Your task to perform on an android device: turn on bluetooth scan Image 0: 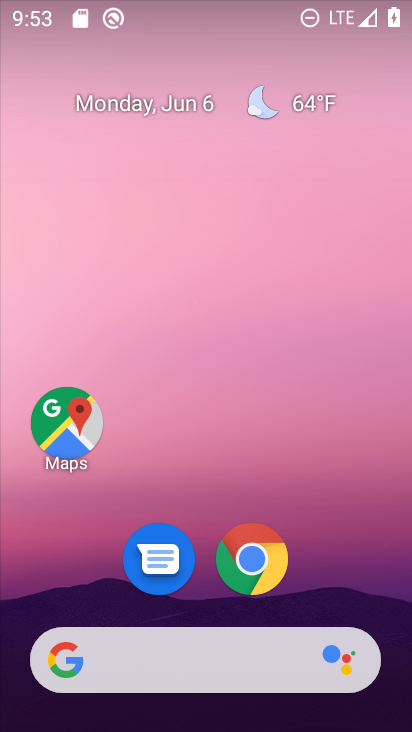
Step 0: click (185, 59)
Your task to perform on an android device: turn on bluetooth scan Image 1: 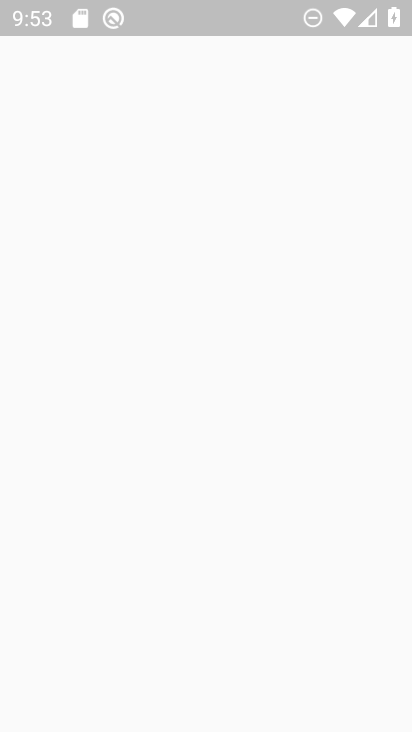
Step 1: press home button
Your task to perform on an android device: turn on bluetooth scan Image 2: 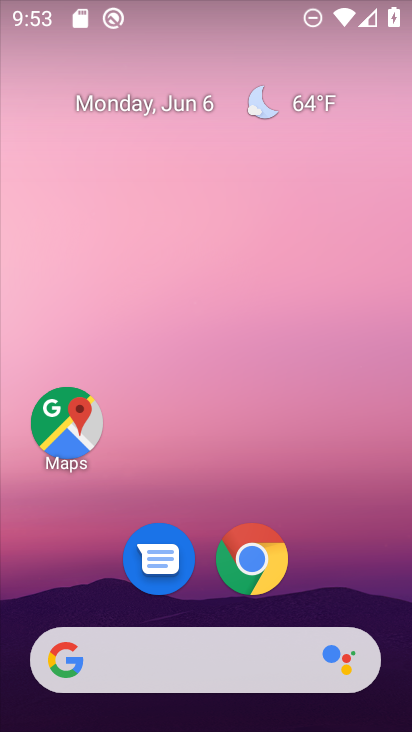
Step 2: drag from (227, 727) to (230, 143)
Your task to perform on an android device: turn on bluetooth scan Image 3: 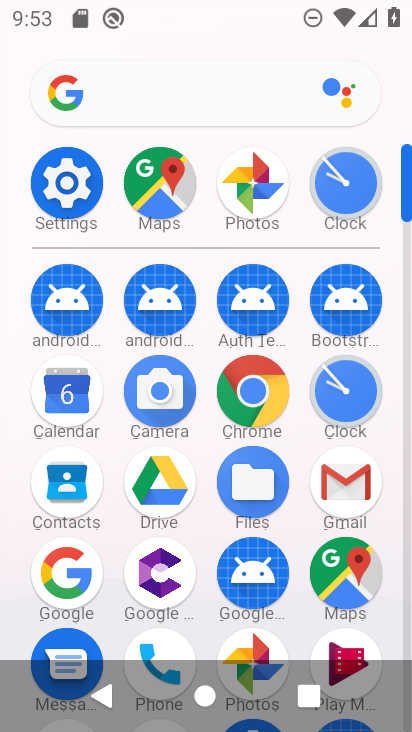
Step 3: click (64, 190)
Your task to perform on an android device: turn on bluetooth scan Image 4: 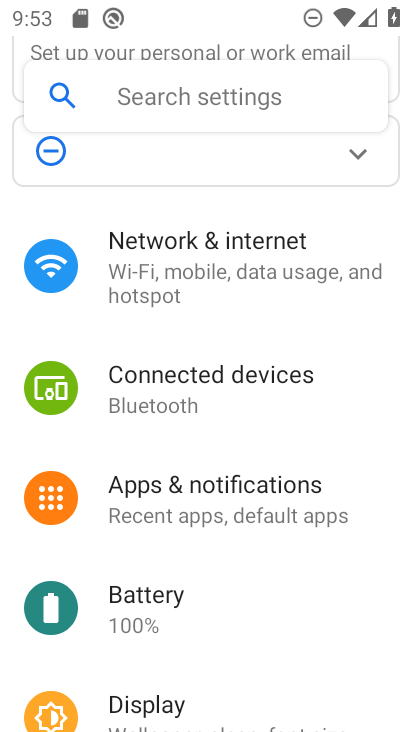
Step 4: drag from (207, 669) to (210, 373)
Your task to perform on an android device: turn on bluetooth scan Image 5: 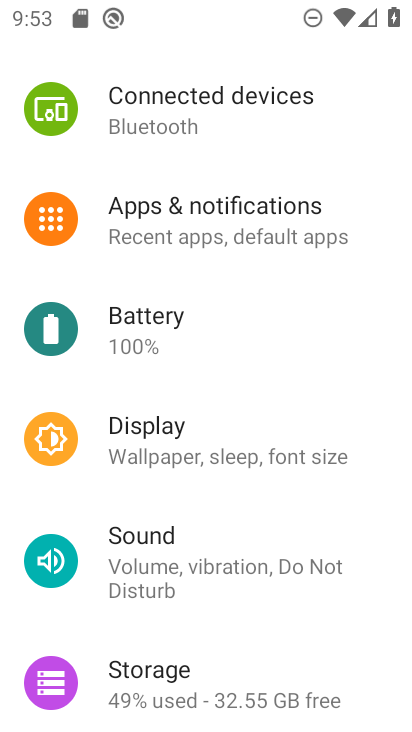
Step 5: drag from (177, 652) to (178, 298)
Your task to perform on an android device: turn on bluetooth scan Image 6: 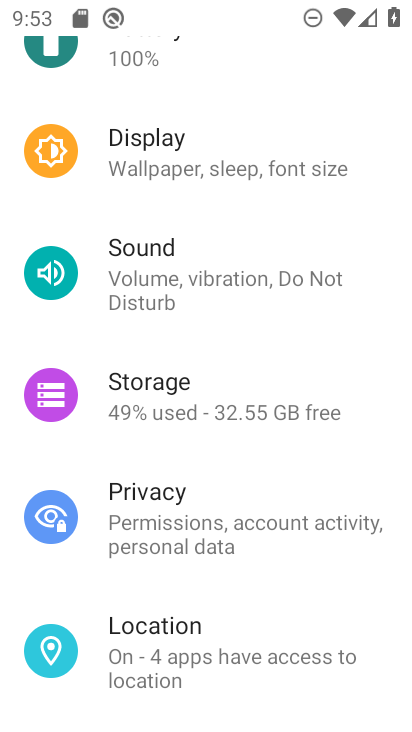
Step 6: click (176, 643)
Your task to perform on an android device: turn on bluetooth scan Image 7: 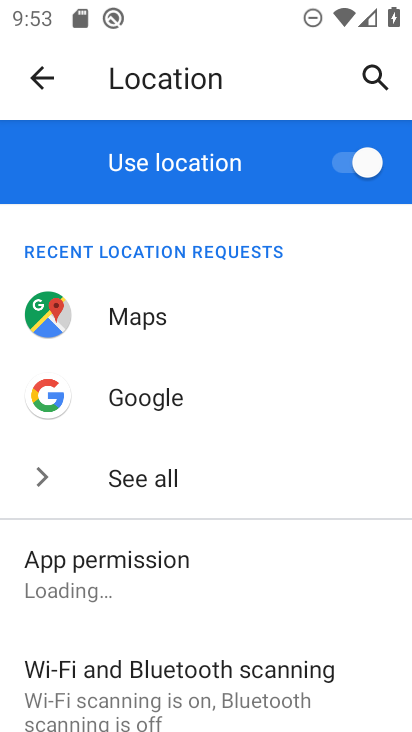
Step 7: drag from (201, 698) to (201, 457)
Your task to perform on an android device: turn on bluetooth scan Image 8: 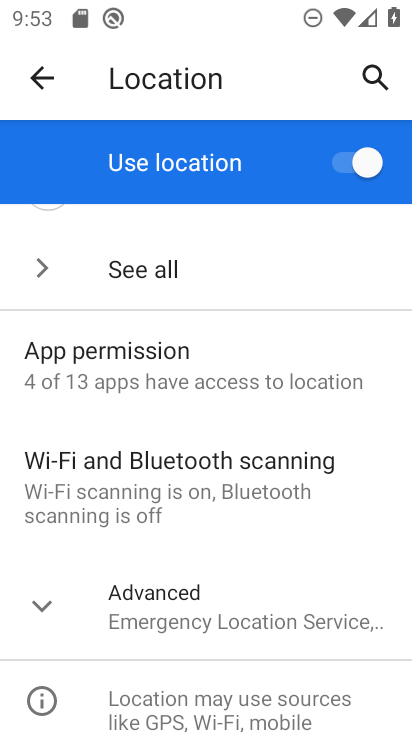
Step 8: click (168, 464)
Your task to perform on an android device: turn on bluetooth scan Image 9: 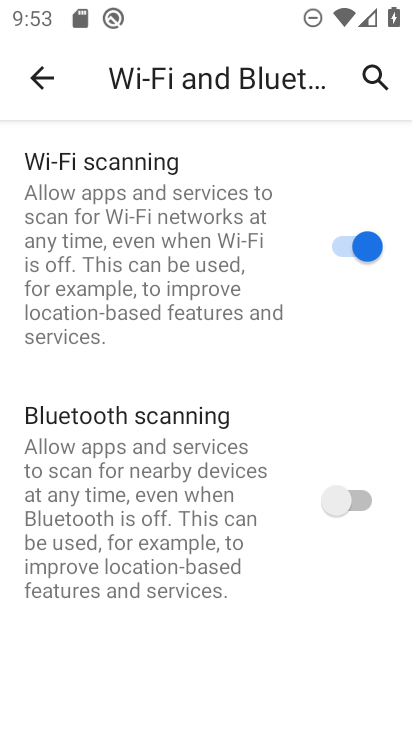
Step 9: click (342, 507)
Your task to perform on an android device: turn on bluetooth scan Image 10: 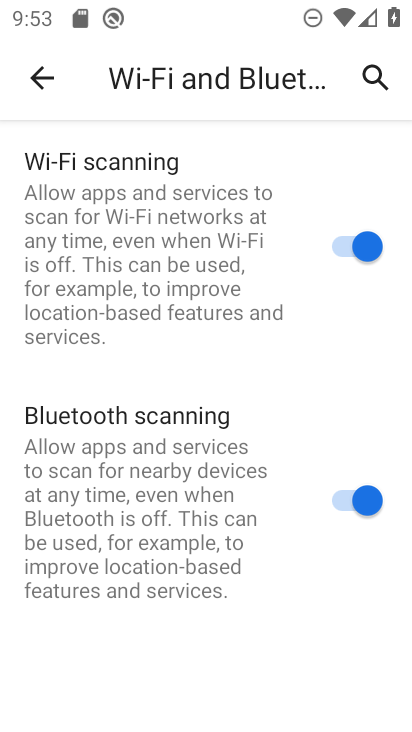
Step 10: task complete